Your task to perform on an android device: What's the weather going to be tomorrow? Image 0: 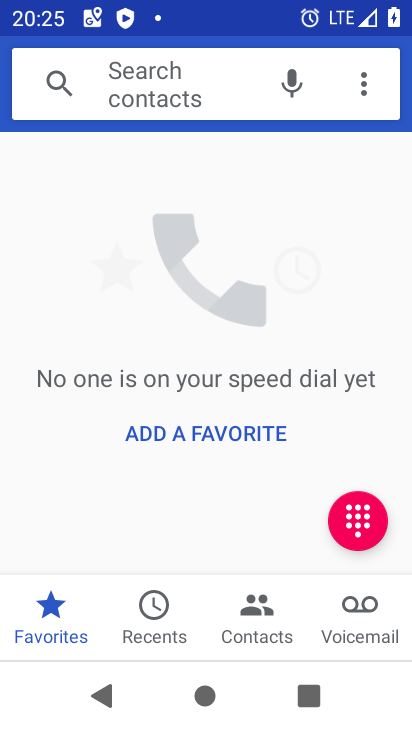
Step 0: press home button
Your task to perform on an android device: What's the weather going to be tomorrow? Image 1: 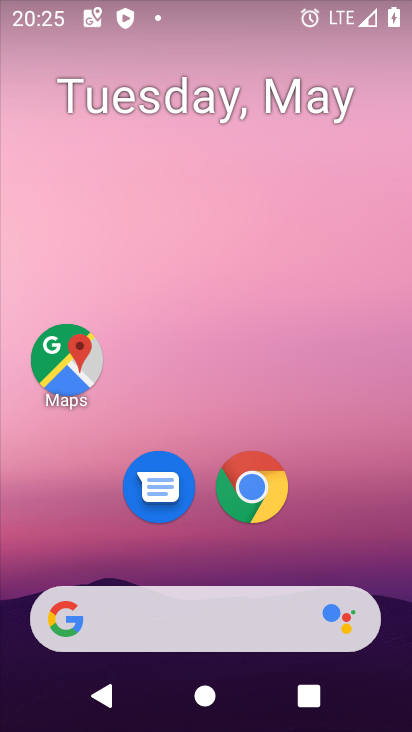
Step 1: click (170, 627)
Your task to perform on an android device: What's the weather going to be tomorrow? Image 2: 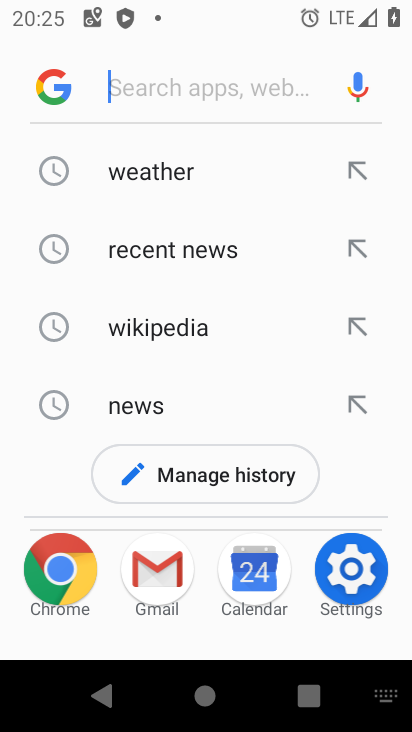
Step 2: click (158, 168)
Your task to perform on an android device: What's the weather going to be tomorrow? Image 3: 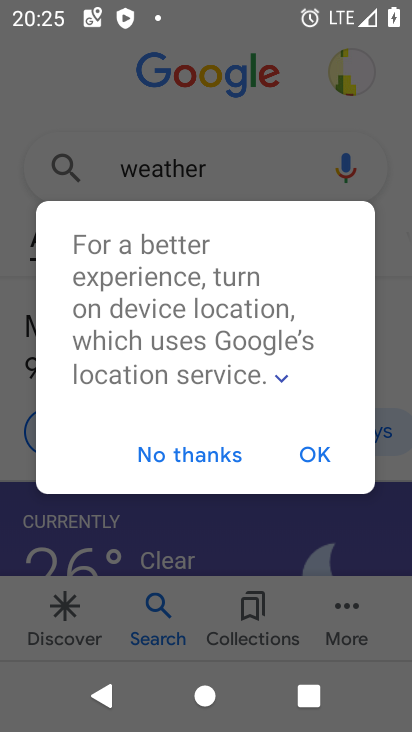
Step 3: click (200, 433)
Your task to perform on an android device: What's the weather going to be tomorrow? Image 4: 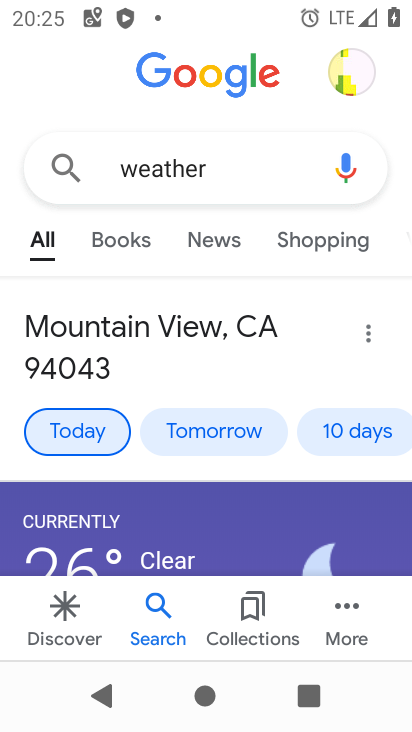
Step 4: click (219, 434)
Your task to perform on an android device: What's the weather going to be tomorrow? Image 5: 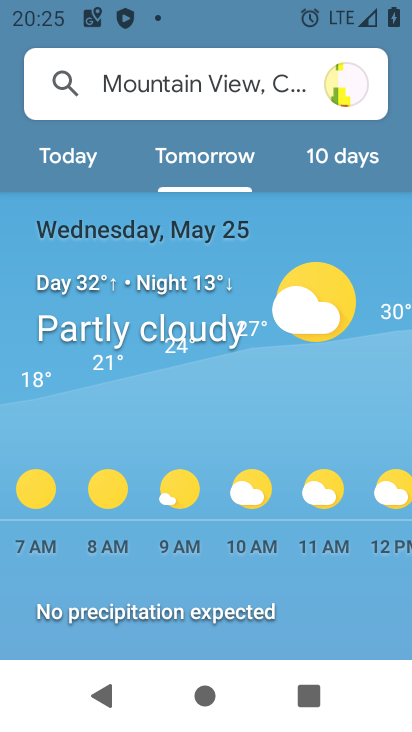
Step 5: task complete